Your task to perform on an android device: turn notification dots on Image 0: 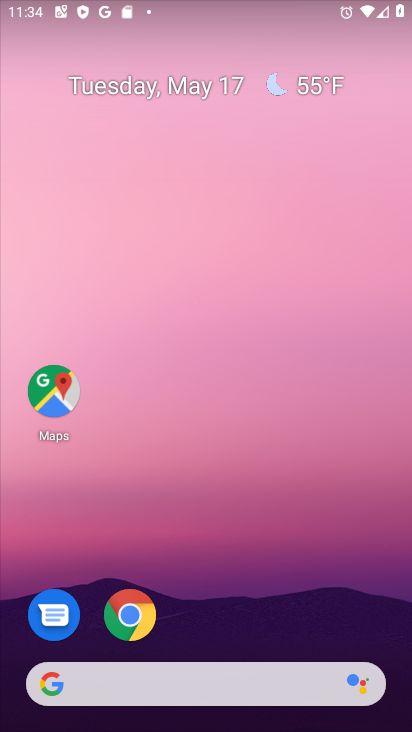
Step 0: drag from (259, 610) to (294, 151)
Your task to perform on an android device: turn notification dots on Image 1: 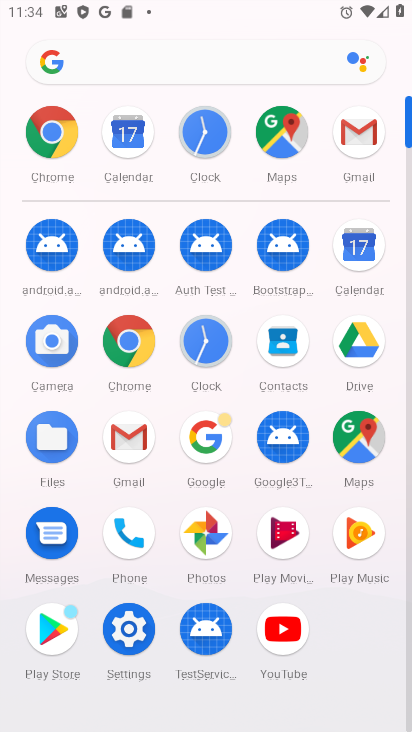
Step 1: click (116, 632)
Your task to perform on an android device: turn notification dots on Image 2: 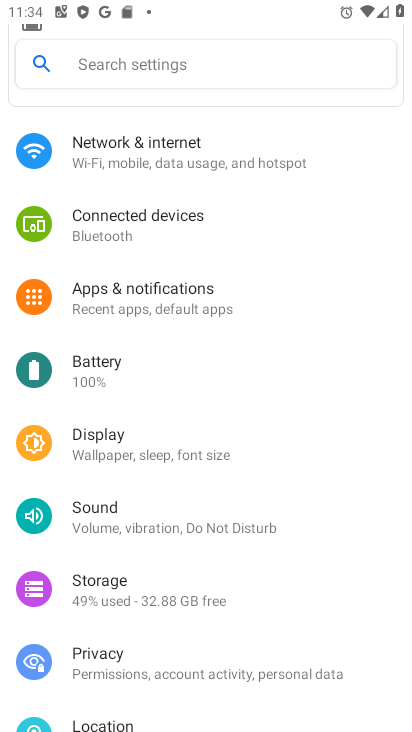
Step 2: click (178, 284)
Your task to perform on an android device: turn notification dots on Image 3: 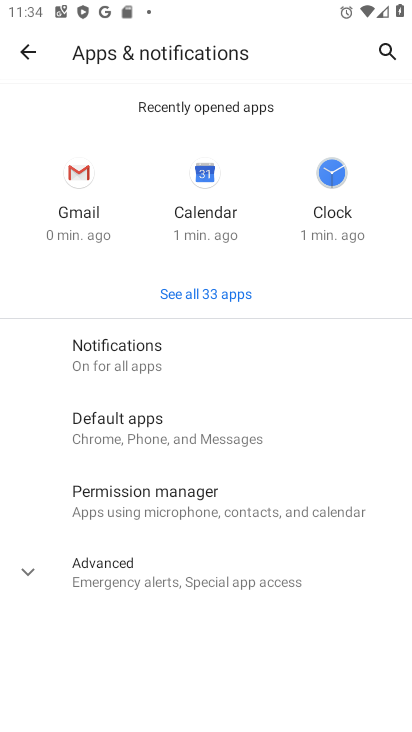
Step 3: click (205, 361)
Your task to perform on an android device: turn notification dots on Image 4: 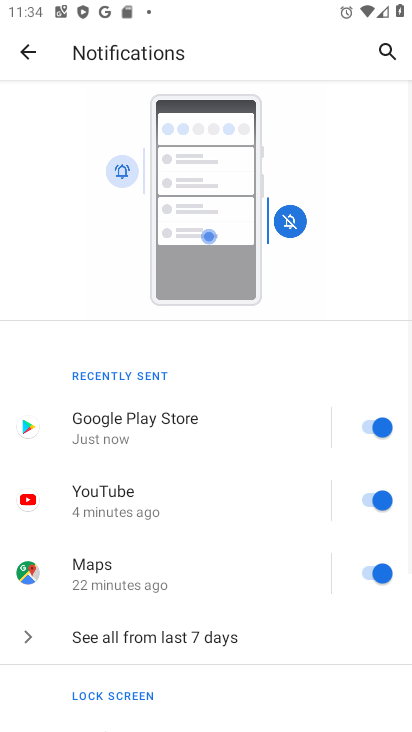
Step 4: drag from (198, 643) to (210, 226)
Your task to perform on an android device: turn notification dots on Image 5: 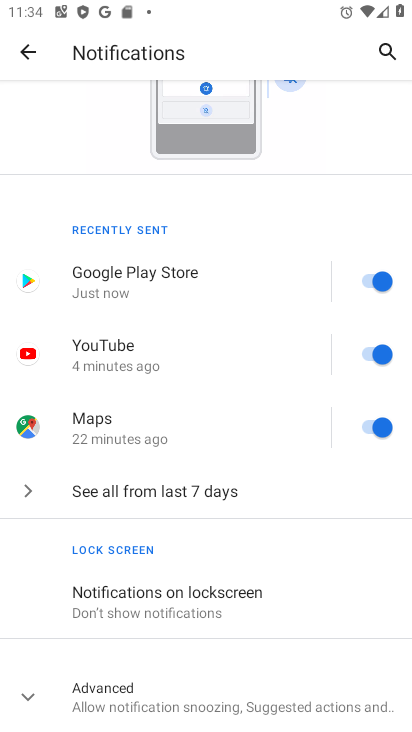
Step 5: click (139, 700)
Your task to perform on an android device: turn notification dots on Image 6: 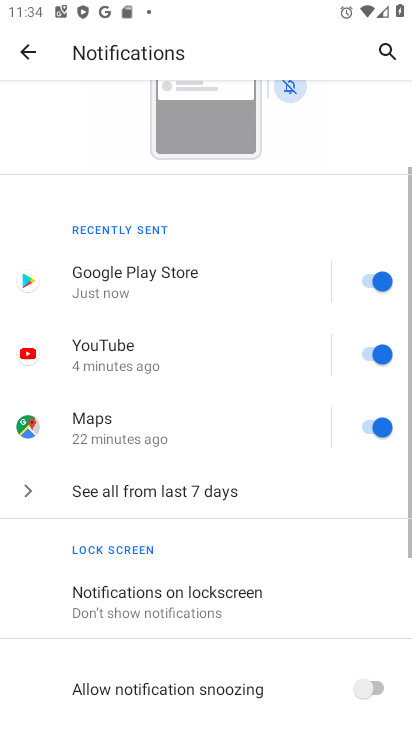
Step 6: task complete